Your task to perform on an android device: Show me popular videos on Youtube Image 0: 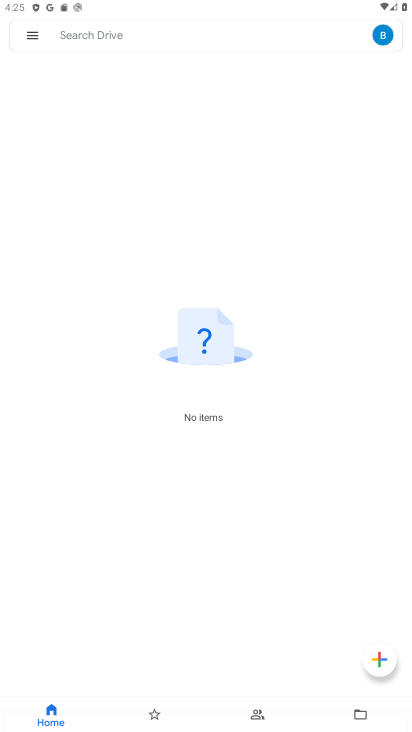
Step 0: press home button
Your task to perform on an android device: Show me popular videos on Youtube Image 1: 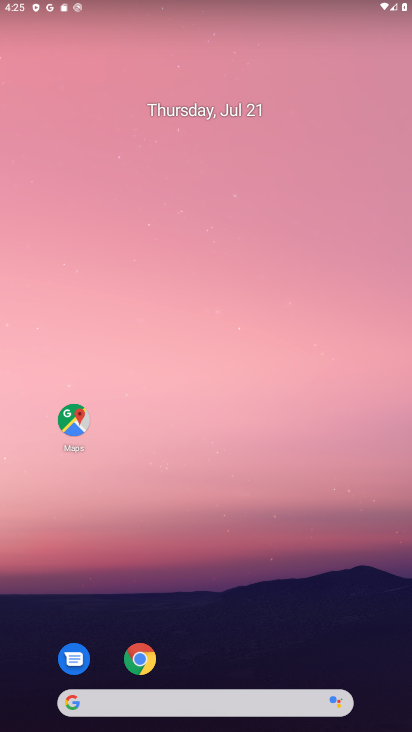
Step 1: drag from (203, 400) to (162, 29)
Your task to perform on an android device: Show me popular videos on Youtube Image 2: 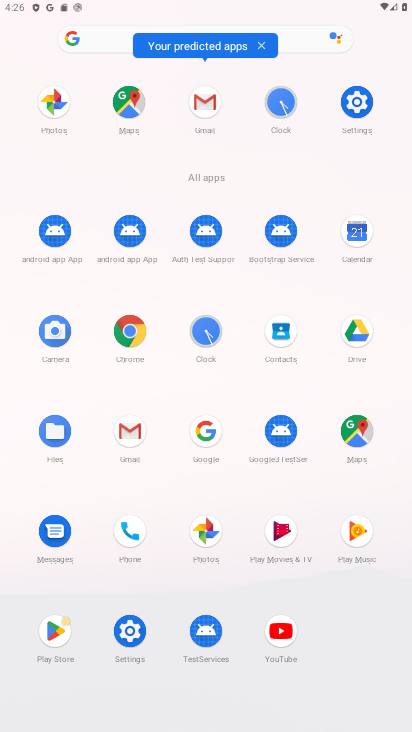
Step 2: click (277, 627)
Your task to perform on an android device: Show me popular videos on Youtube Image 3: 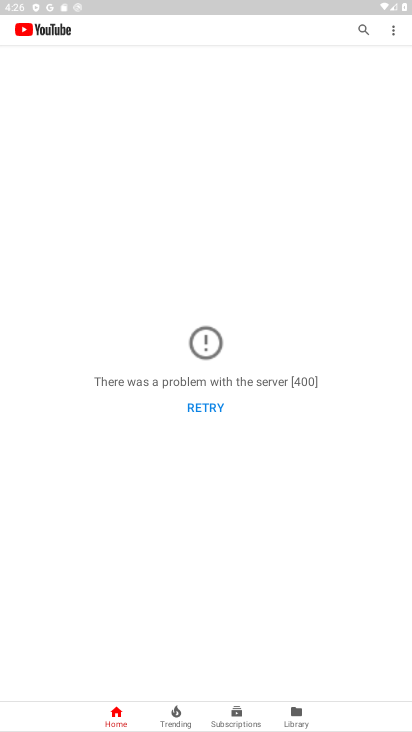
Step 3: click (205, 405)
Your task to perform on an android device: Show me popular videos on Youtube Image 4: 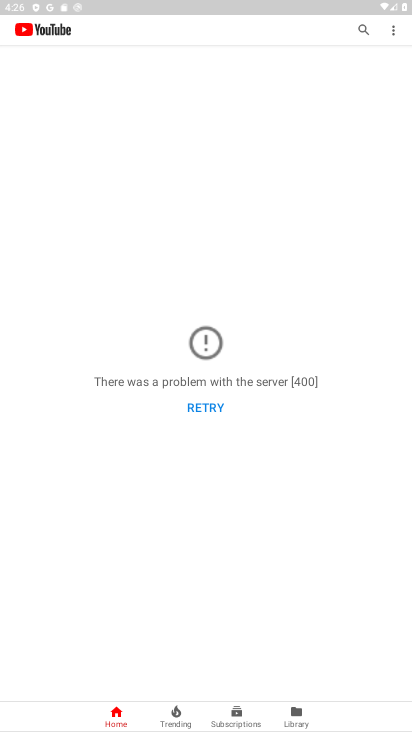
Step 4: click (200, 408)
Your task to perform on an android device: Show me popular videos on Youtube Image 5: 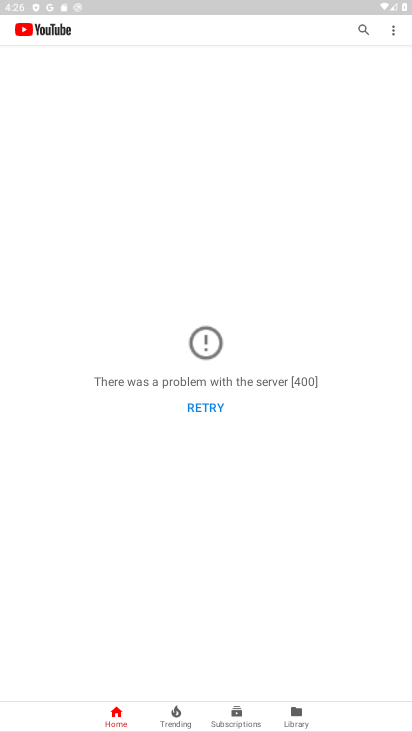
Step 5: click (209, 408)
Your task to perform on an android device: Show me popular videos on Youtube Image 6: 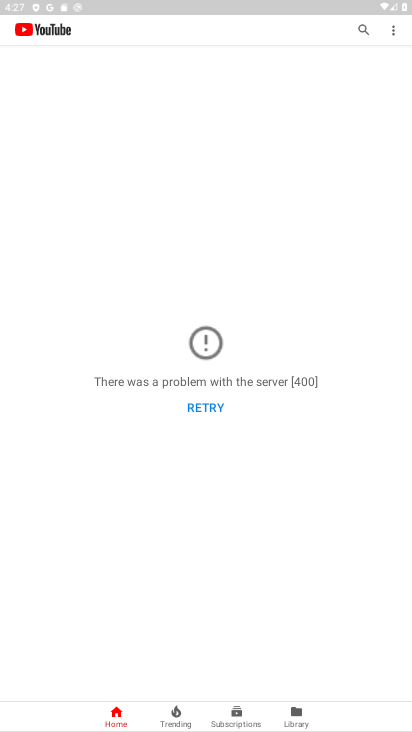
Step 6: click (196, 407)
Your task to perform on an android device: Show me popular videos on Youtube Image 7: 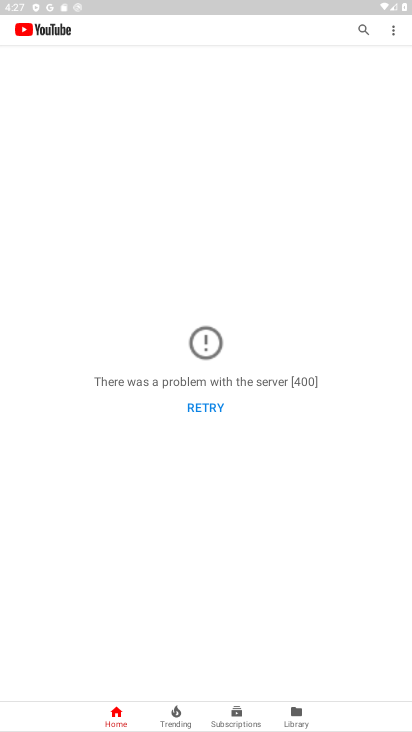
Step 7: click (197, 399)
Your task to perform on an android device: Show me popular videos on Youtube Image 8: 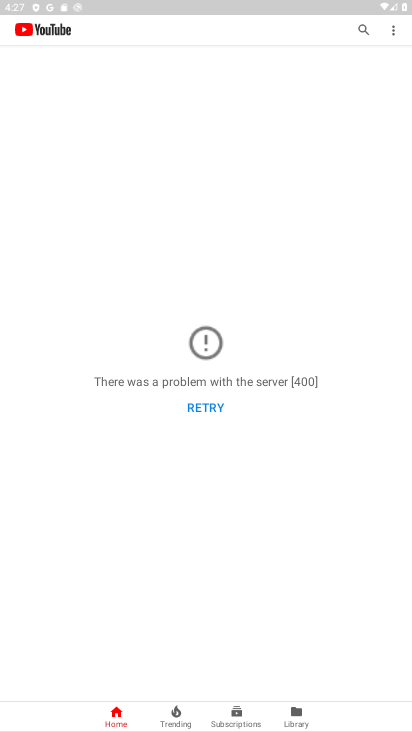
Step 8: click (197, 403)
Your task to perform on an android device: Show me popular videos on Youtube Image 9: 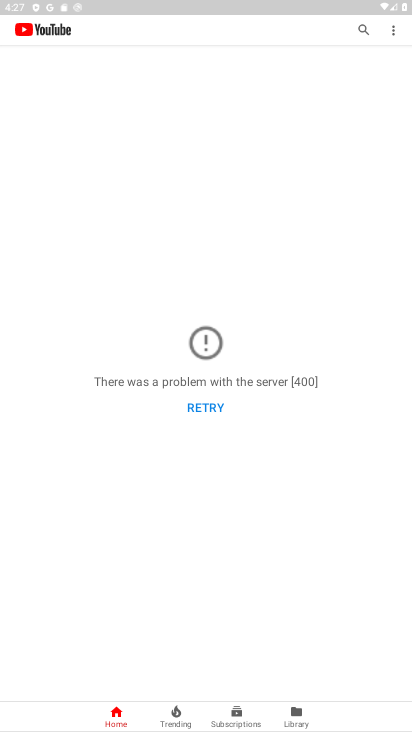
Step 9: task complete